Your task to perform on an android device: Search for pizza restaurants on Maps Image 0: 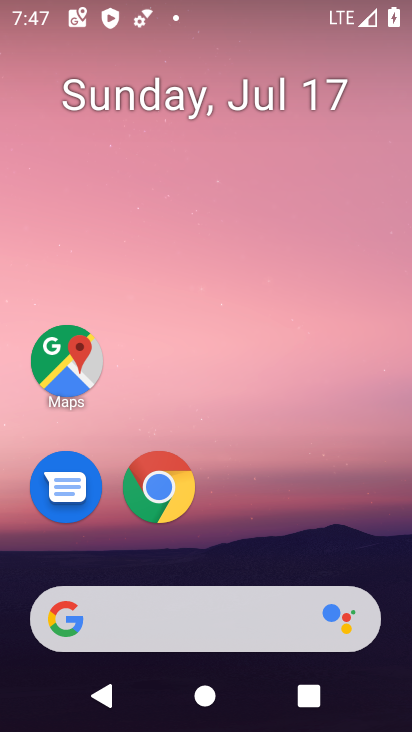
Step 0: drag from (336, 536) to (335, 83)
Your task to perform on an android device: Search for pizza restaurants on Maps Image 1: 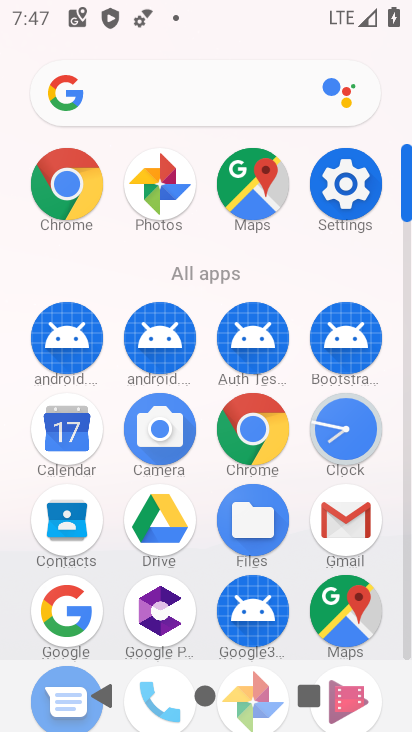
Step 1: click (350, 610)
Your task to perform on an android device: Search for pizza restaurants on Maps Image 2: 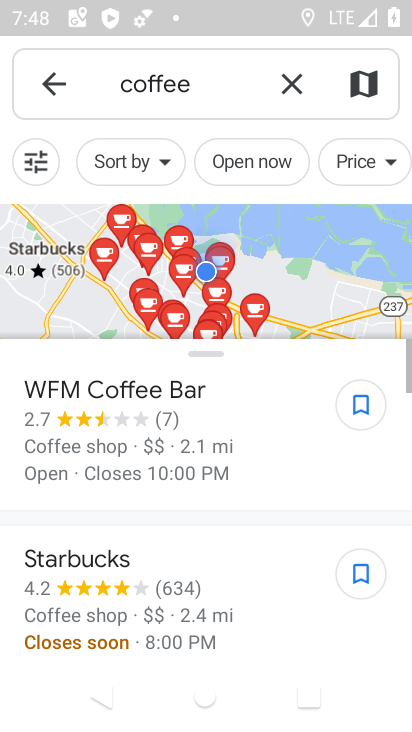
Step 2: press back button
Your task to perform on an android device: Search for pizza restaurants on Maps Image 3: 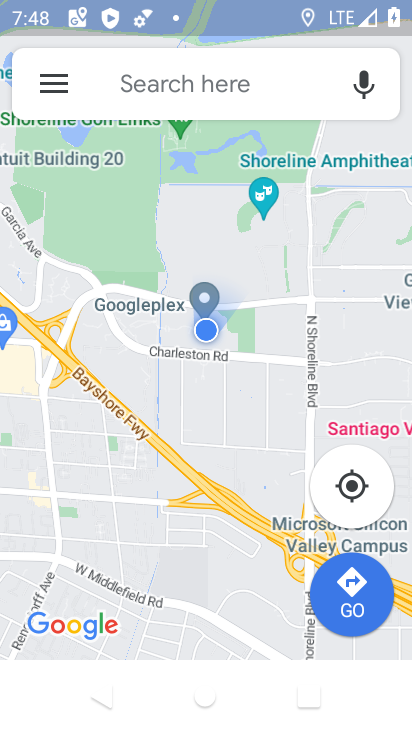
Step 3: click (311, 95)
Your task to perform on an android device: Search for pizza restaurants on Maps Image 4: 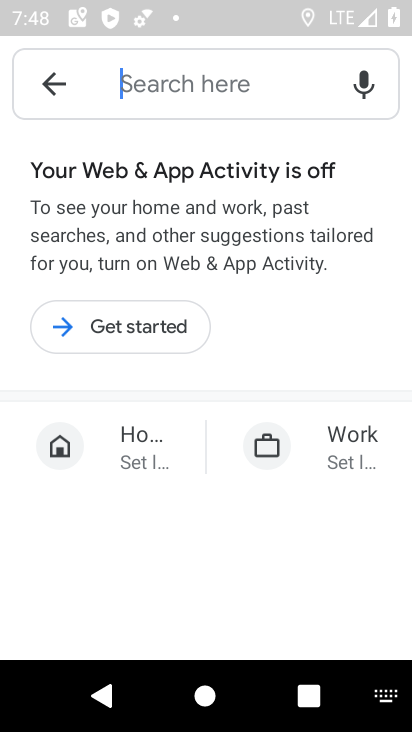
Step 4: type "pizza restaurants"
Your task to perform on an android device: Search for pizza restaurants on Maps Image 5: 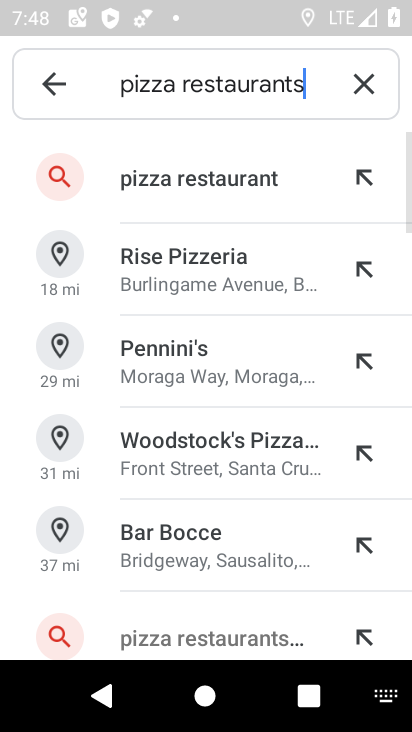
Step 5: click (320, 197)
Your task to perform on an android device: Search for pizza restaurants on Maps Image 6: 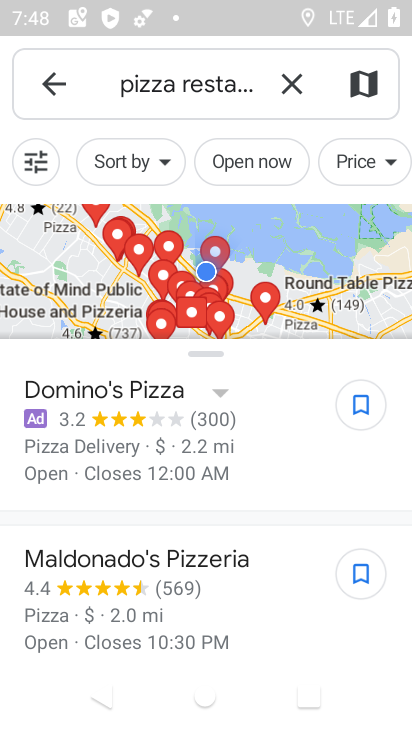
Step 6: task complete